Your task to perform on an android device: Go to settings Image 0: 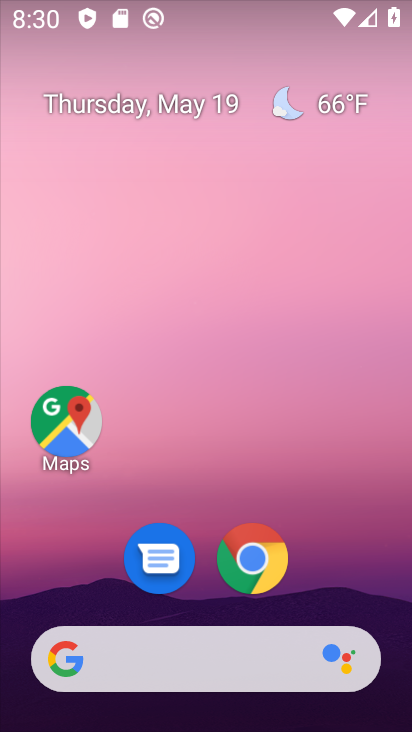
Step 0: drag from (194, 566) to (179, 243)
Your task to perform on an android device: Go to settings Image 1: 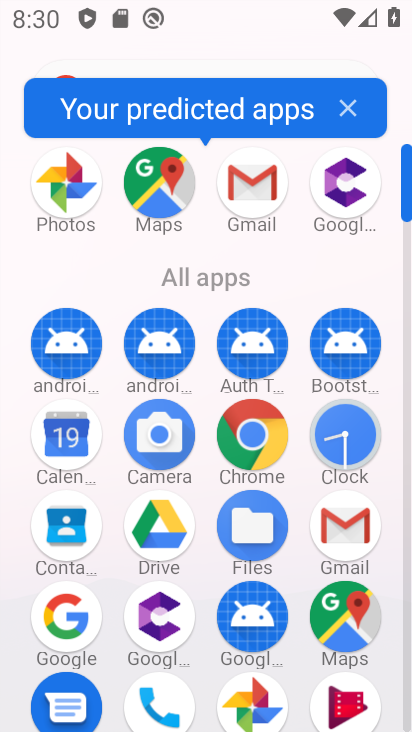
Step 1: drag from (178, 518) to (238, 236)
Your task to perform on an android device: Go to settings Image 2: 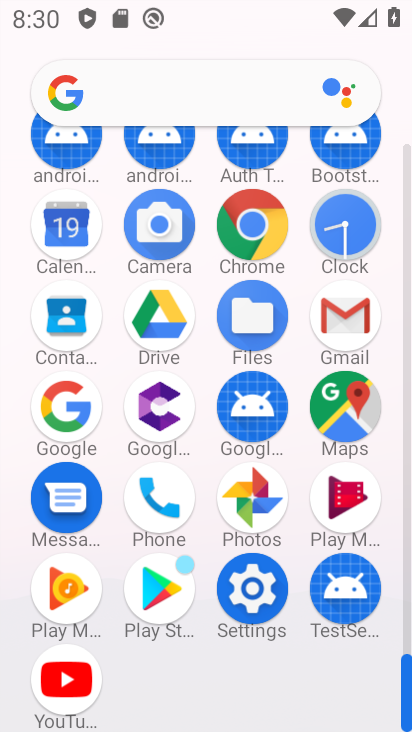
Step 2: click (248, 575)
Your task to perform on an android device: Go to settings Image 3: 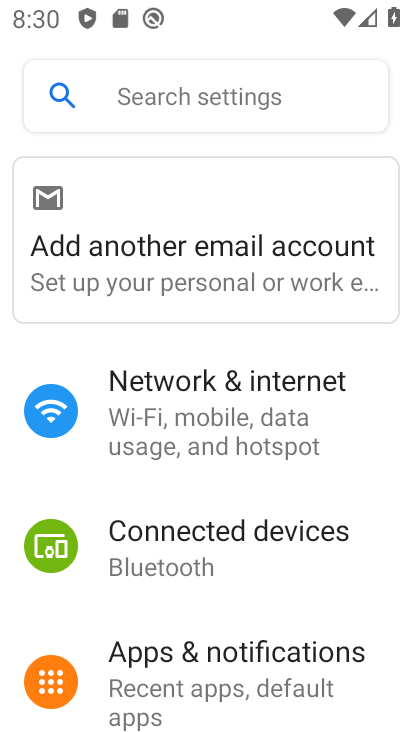
Step 3: task complete